Your task to perform on an android device: delete a single message in the gmail app Image 0: 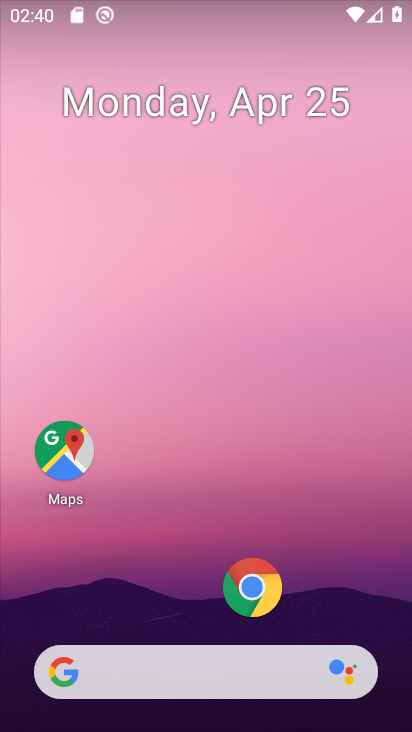
Step 0: drag from (234, 137) to (234, 77)
Your task to perform on an android device: delete a single message in the gmail app Image 1: 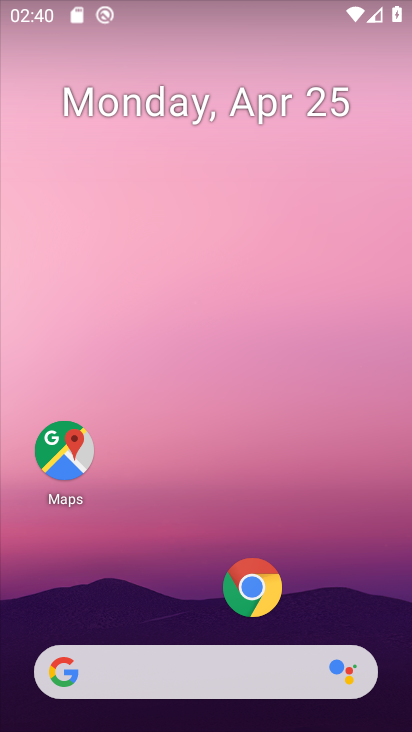
Step 1: drag from (197, 630) to (200, 62)
Your task to perform on an android device: delete a single message in the gmail app Image 2: 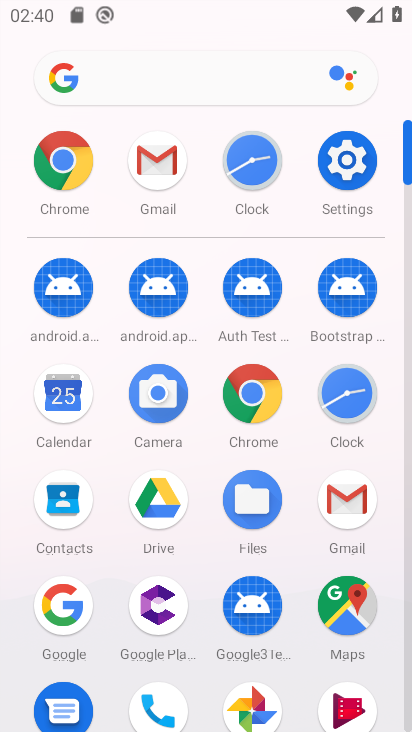
Step 2: click (347, 491)
Your task to perform on an android device: delete a single message in the gmail app Image 3: 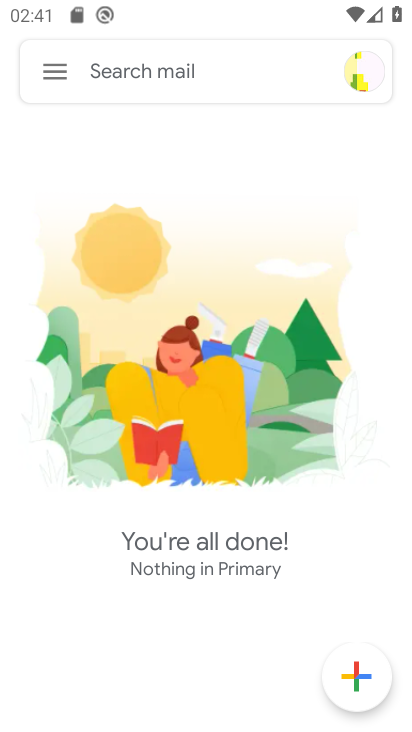
Step 3: click (48, 68)
Your task to perform on an android device: delete a single message in the gmail app Image 4: 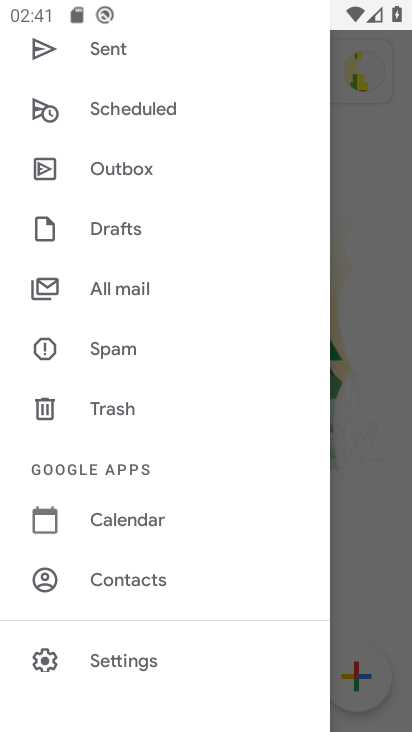
Step 4: drag from (182, 625) to (171, 155)
Your task to perform on an android device: delete a single message in the gmail app Image 5: 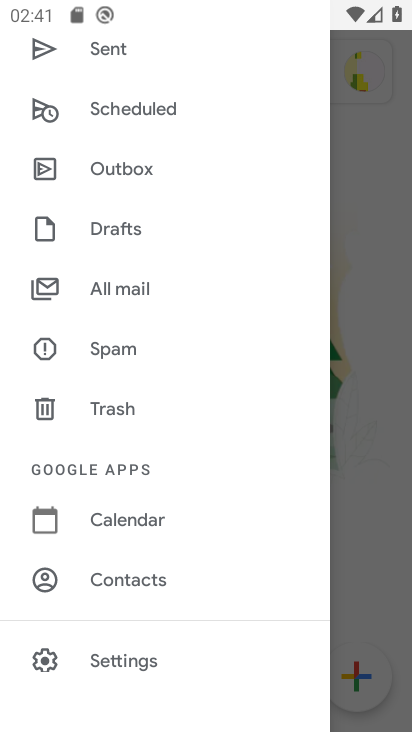
Step 5: click (124, 281)
Your task to perform on an android device: delete a single message in the gmail app Image 6: 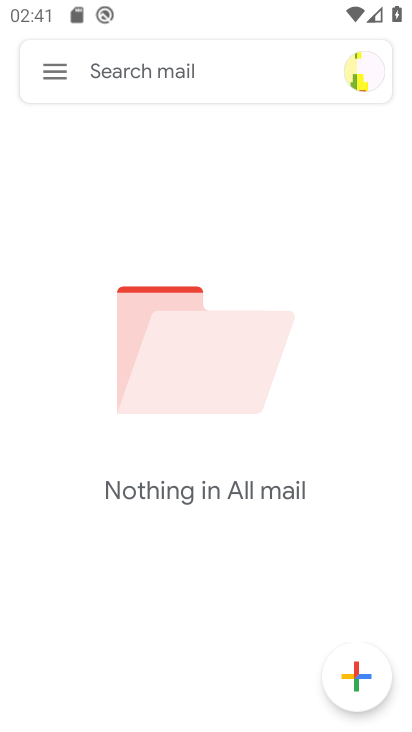
Step 6: task complete